Your task to perform on an android device: Go to Yahoo.com Image 0: 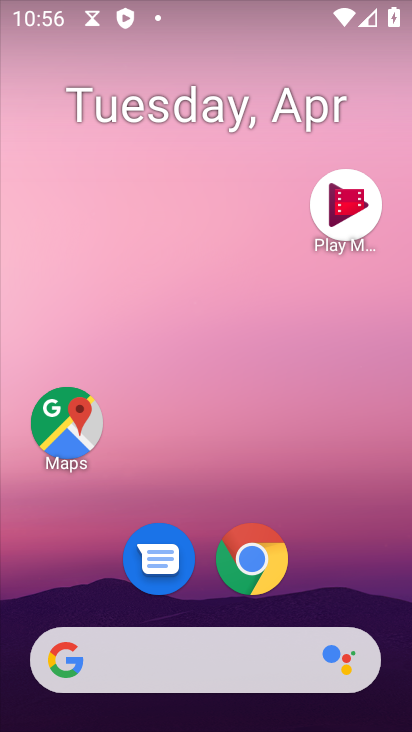
Step 0: click (190, 127)
Your task to perform on an android device: Go to Yahoo.com Image 1: 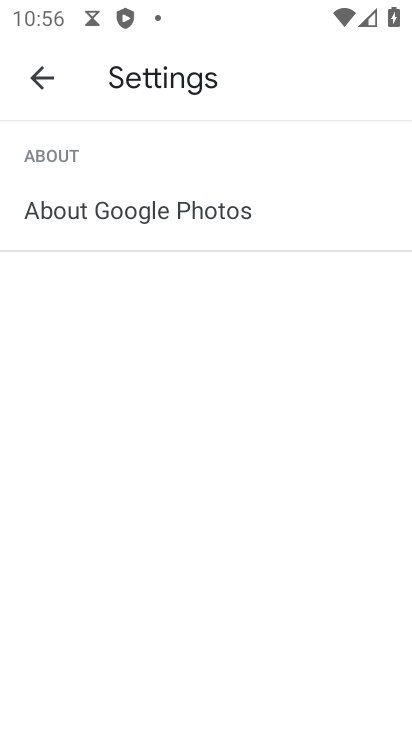
Step 1: press home button
Your task to perform on an android device: Go to Yahoo.com Image 2: 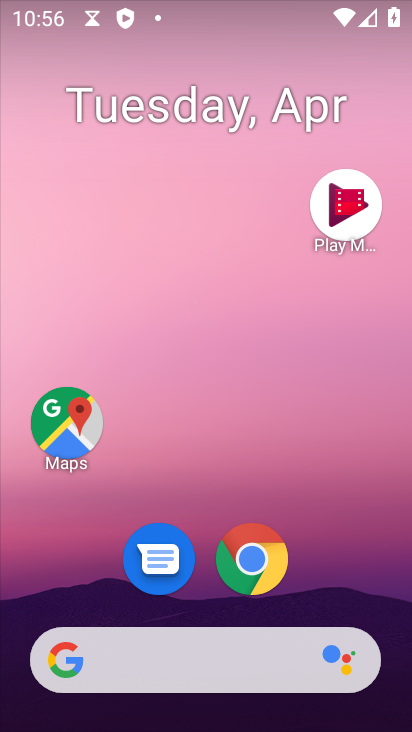
Step 2: click (252, 559)
Your task to perform on an android device: Go to Yahoo.com Image 3: 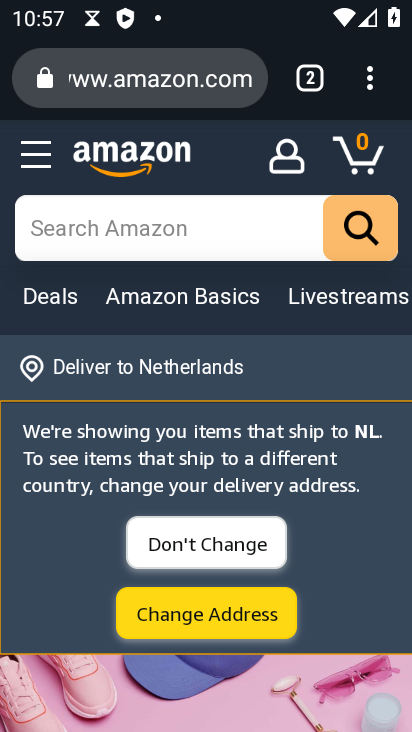
Step 3: click (312, 74)
Your task to perform on an android device: Go to Yahoo.com Image 4: 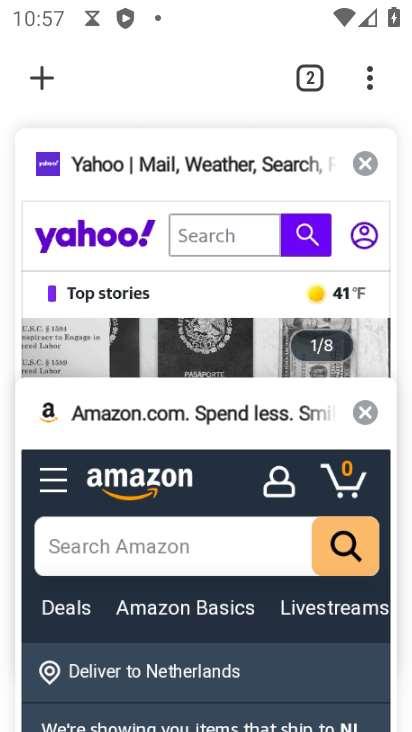
Step 4: click (131, 181)
Your task to perform on an android device: Go to Yahoo.com Image 5: 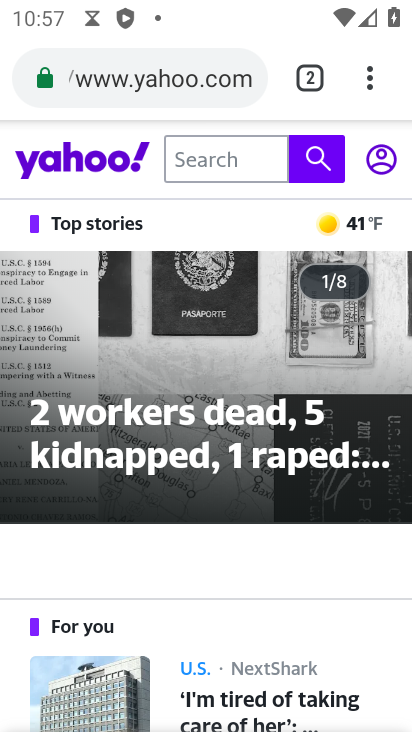
Step 5: task complete